Your task to perform on an android device: toggle airplane mode Image 0: 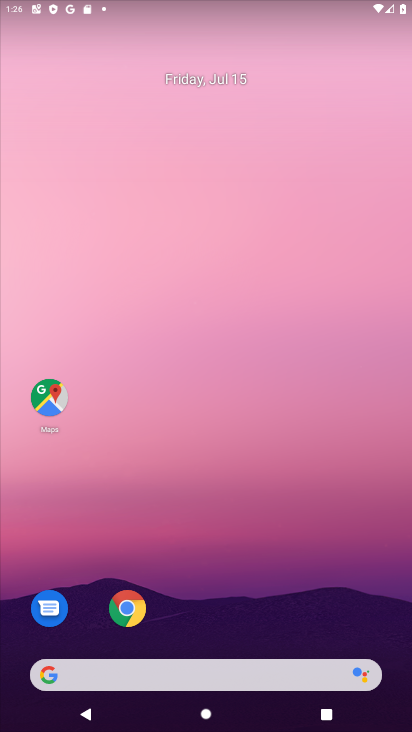
Step 0: drag from (231, 565) to (263, 11)
Your task to perform on an android device: toggle airplane mode Image 1: 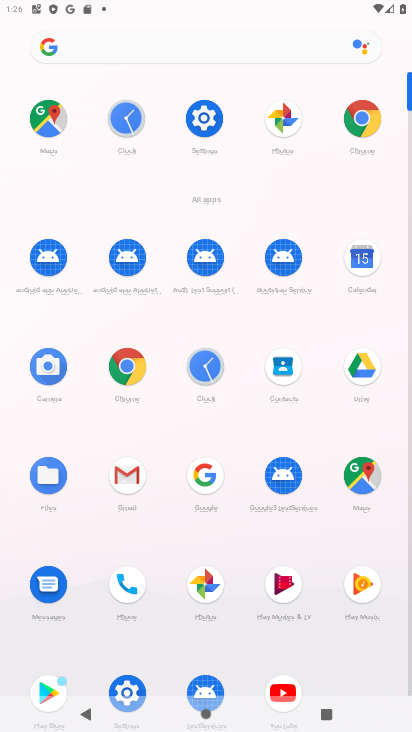
Step 1: click (211, 110)
Your task to perform on an android device: toggle airplane mode Image 2: 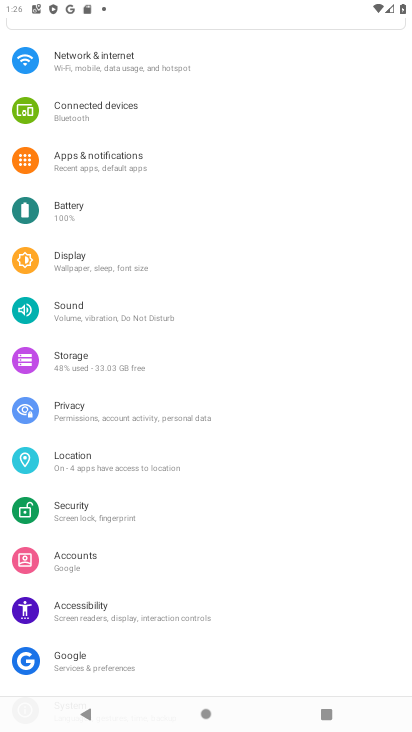
Step 2: click (132, 74)
Your task to perform on an android device: toggle airplane mode Image 3: 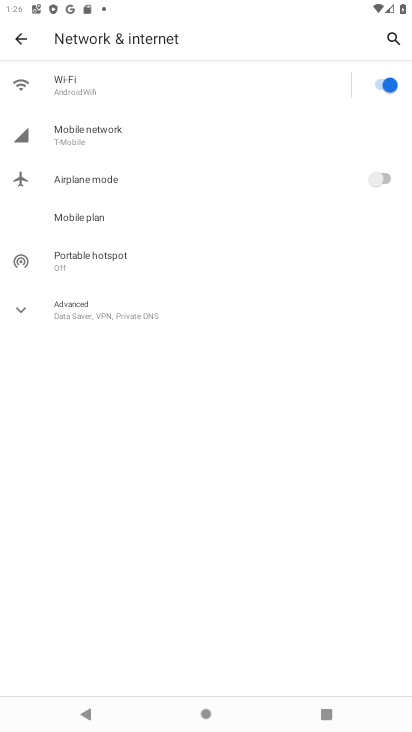
Step 3: click (387, 178)
Your task to perform on an android device: toggle airplane mode Image 4: 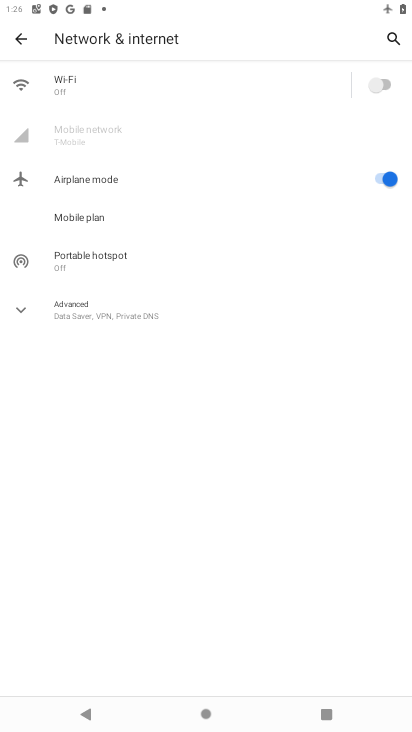
Step 4: task complete